Your task to perform on an android device: turn on location history Image 0: 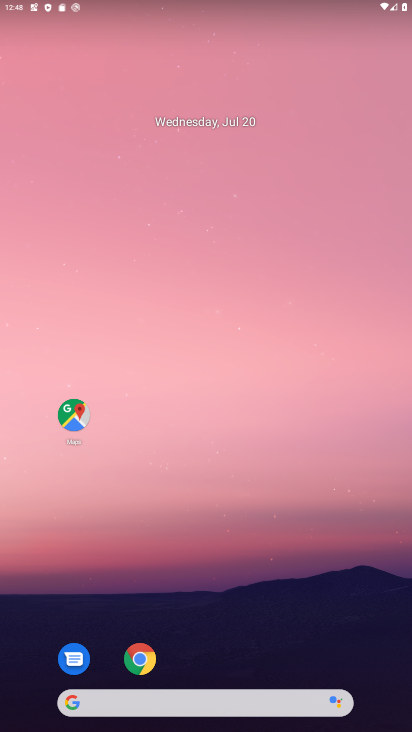
Step 0: click (137, 657)
Your task to perform on an android device: turn on location history Image 1: 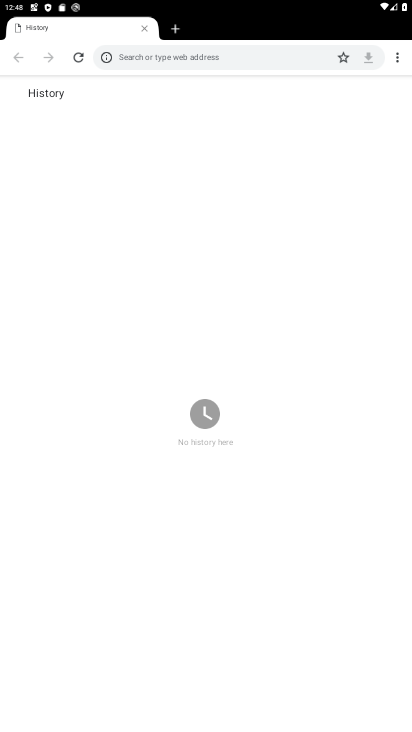
Step 1: click (397, 55)
Your task to perform on an android device: turn on location history Image 2: 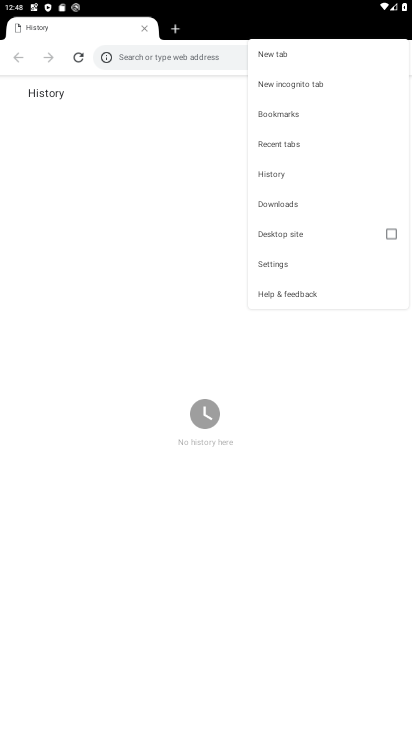
Step 2: click (278, 173)
Your task to perform on an android device: turn on location history Image 3: 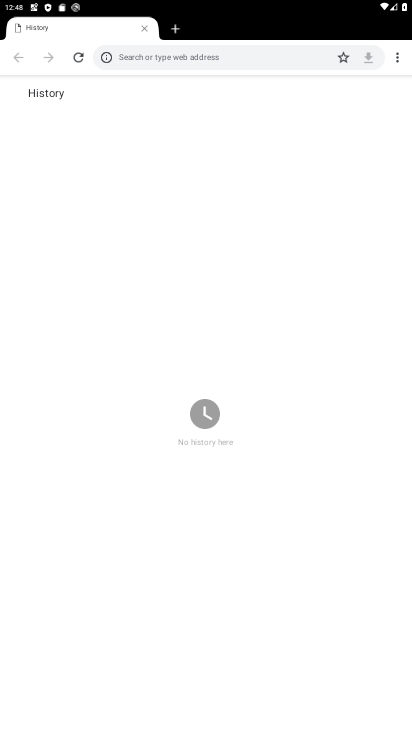
Step 3: task complete